Your task to perform on an android device: Open sound settings Image 0: 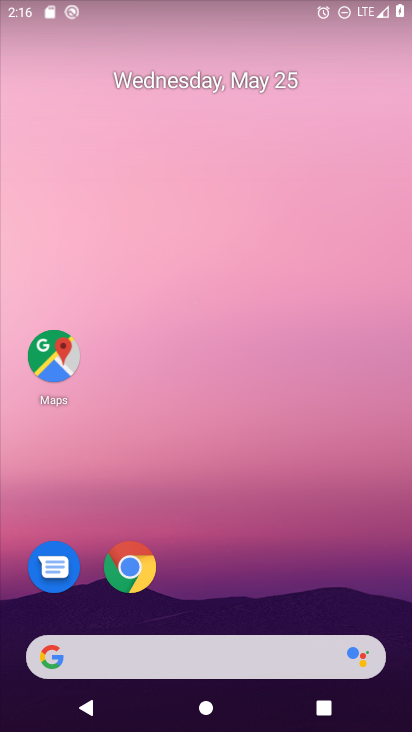
Step 0: drag from (379, 556) to (367, 257)
Your task to perform on an android device: Open sound settings Image 1: 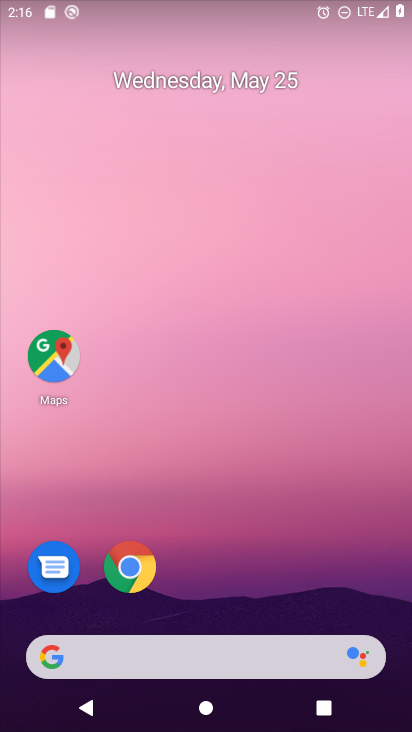
Step 1: drag from (399, 672) to (389, 241)
Your task to perform on an android device: Open sound settings Image 2: 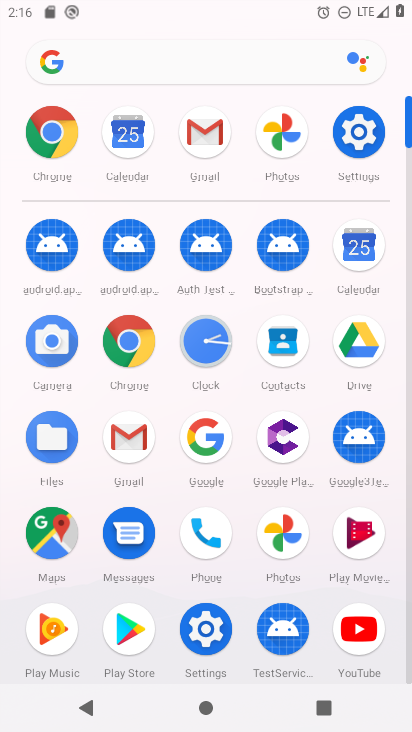
Step 2: click (208, 615)
Your task to perform on an android device: Open sound settings Image 3: 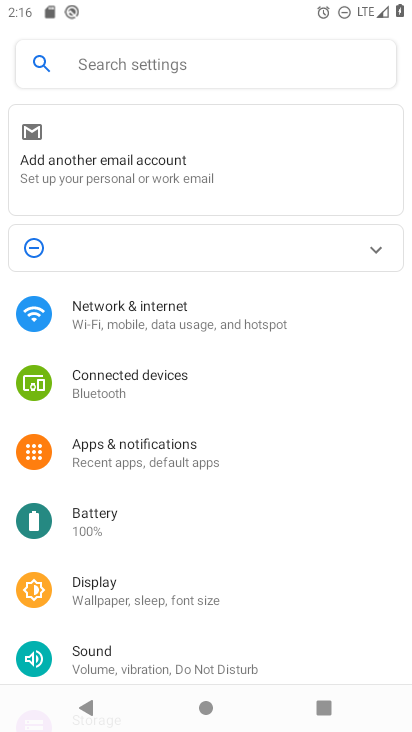
Step 3: click (108, 651)
Your task to perform on an android device: Open sound settings Image 4: 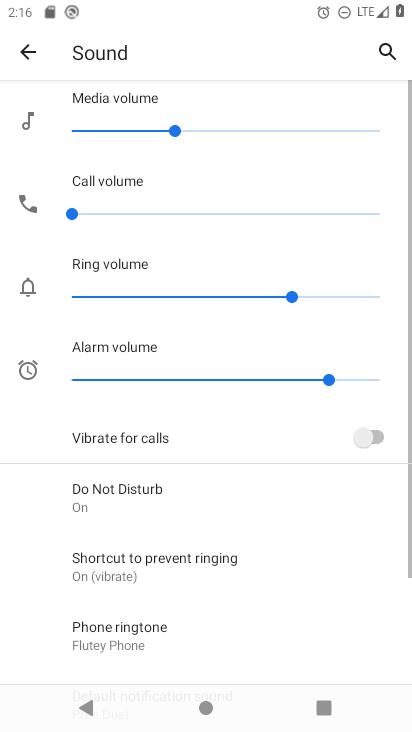
Step 4: task complete